Your task to perform on an android device: change the clock style Image 0: 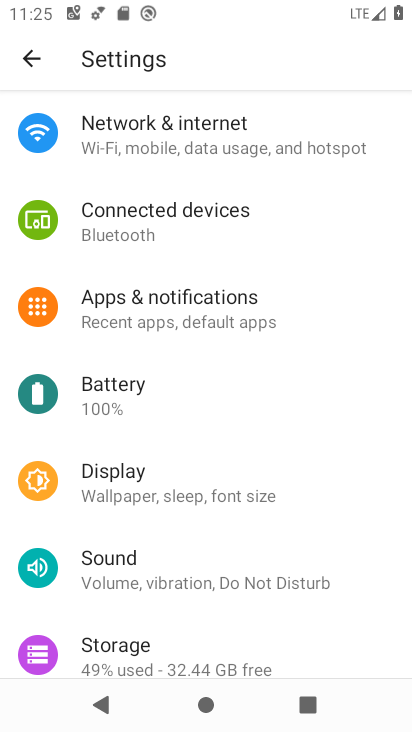
Step 0: press home button
Your task to perform on an android device: change the clock style Image 1: 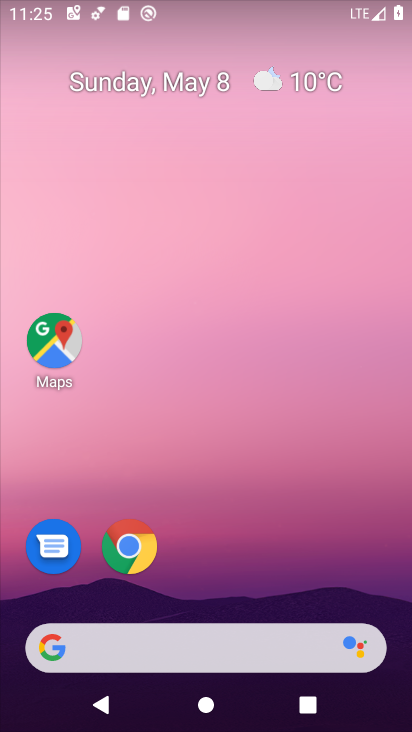
Step 1: drag from (395, 618) to (296, 6)
Your task to perform on an android device: change the clock style Image 2: 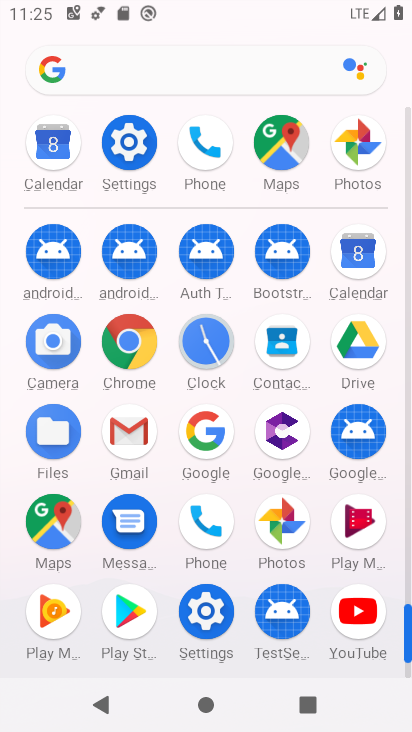
Step 2: click (205, 341)
Your task to perform on an android device: change the clock style Image 3: 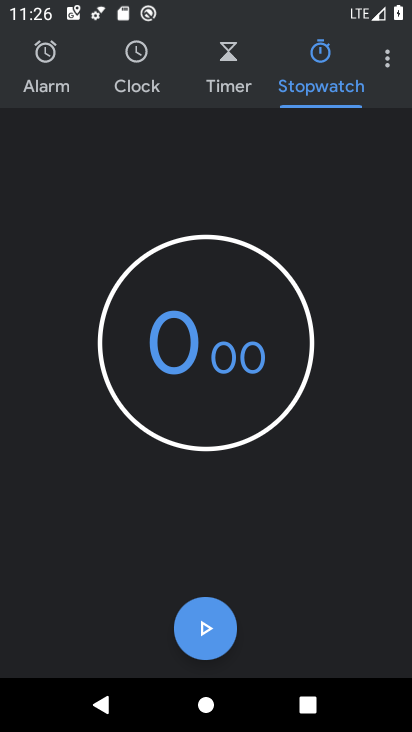
Step 3: click (391, 58)
Your task to perform on an android device: change the clock style Image 4: 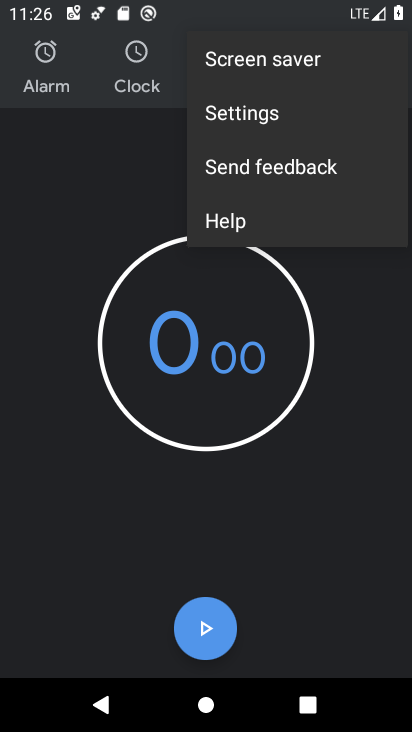
Step 4: click (219, 113)
Your task to perform on an android device: change the clock style Image 5: 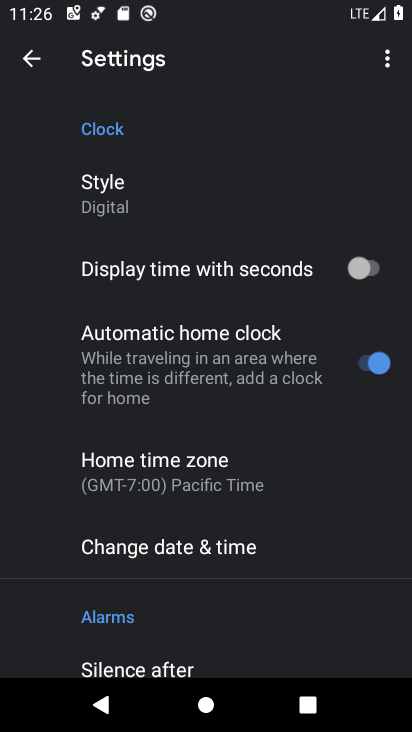
Step 5: click (108, 199)
Your task to perform on an android device: change the clock style Image 6: 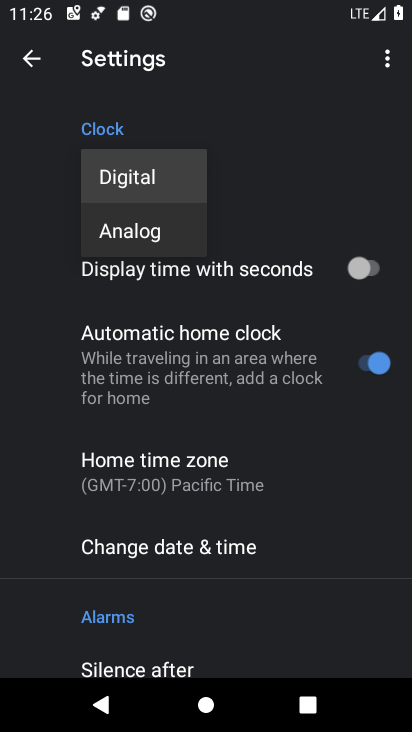
Step 6: click (127, 229)
Your task to perform on an android device: change the clock style Image 7: 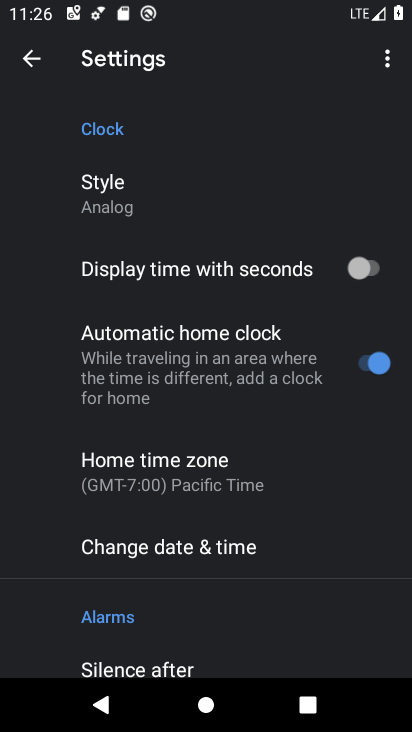
Step 7: task complete